Your task to perform on an android device: choose inbox layout in the gmail app Image 0: 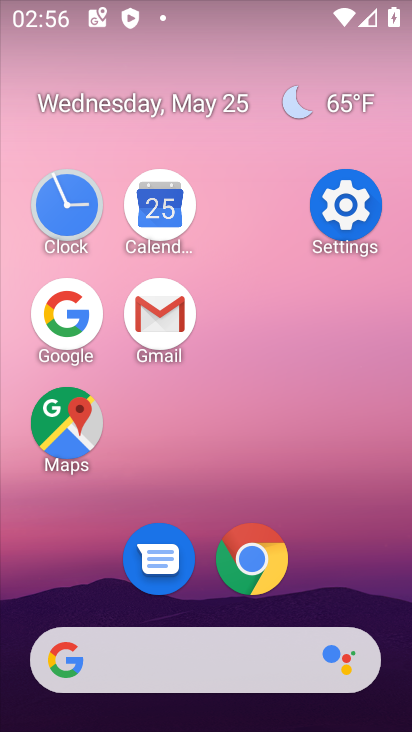
Step 0: click (183, 325)
Your task to perform on an android device: choose inbox layout in the gmail app Image 1: 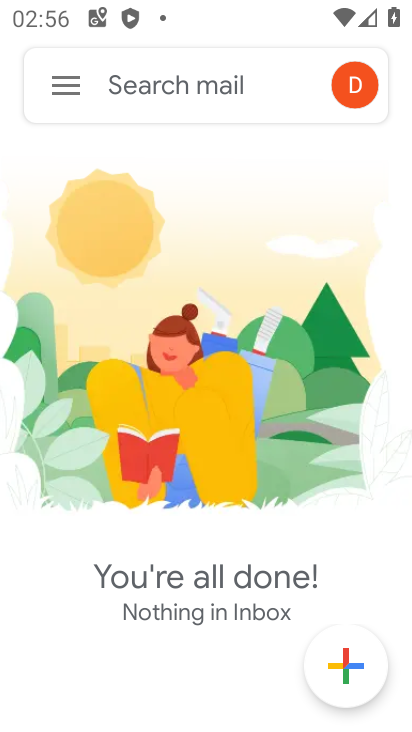
Step 1: click (83, 79)
Your task to perform on an android device: choose inbox layout in the gmail app Image 2: 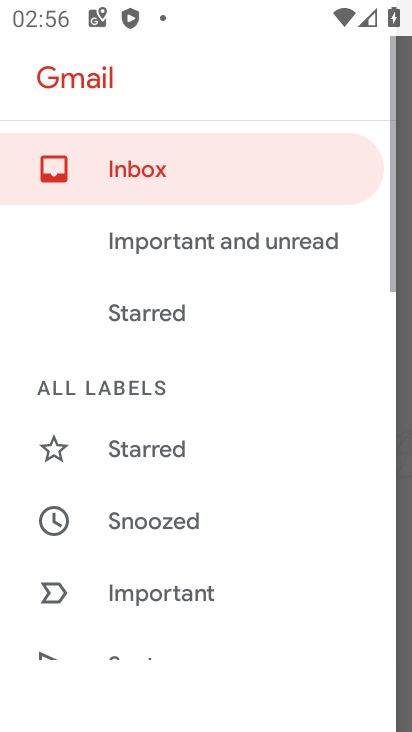
Step 2: drag from (234, 563) to (263, 163)
Your task to perform on an android device: choose inbox layout in the gmail app Image 3: 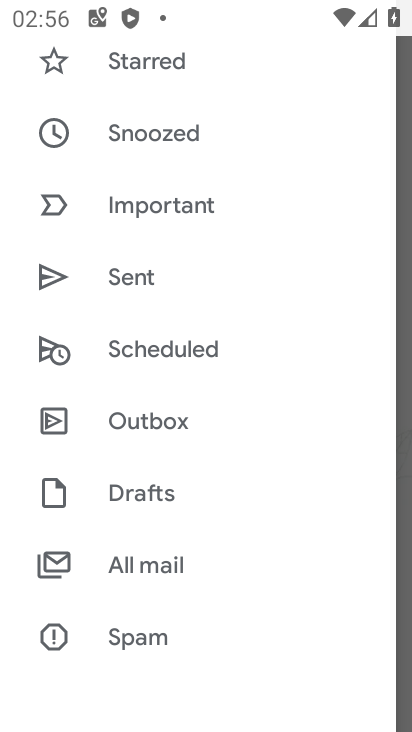
Step 3: drag from (154, 547) to (163, 117)
Your task to perform on an android device: choose inbox layout in the gmail app Image 4: 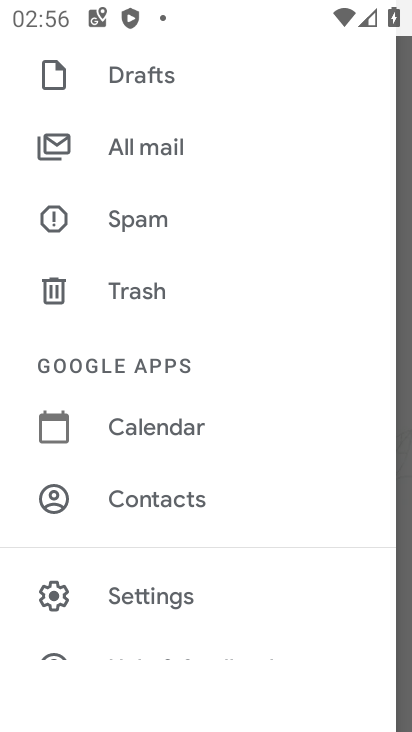
Step 4: click (191, 596)
Your task to perform on an android device: choose inbox layout in the gmail app Image 5: 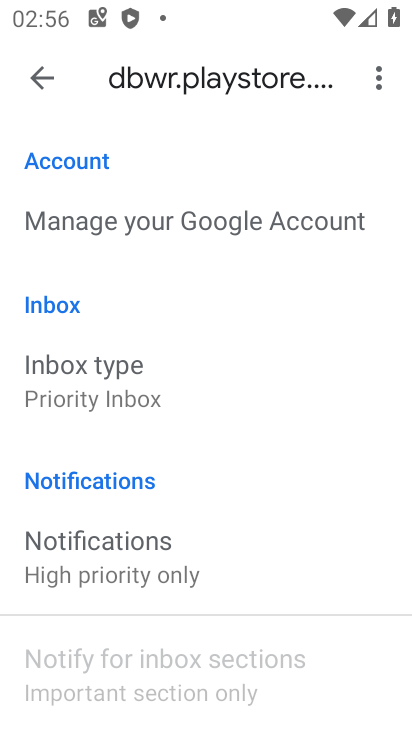
Step 5: click (194, 364)
Your task to perform on an android device: choose inbox layout in the gmail app Image 6: 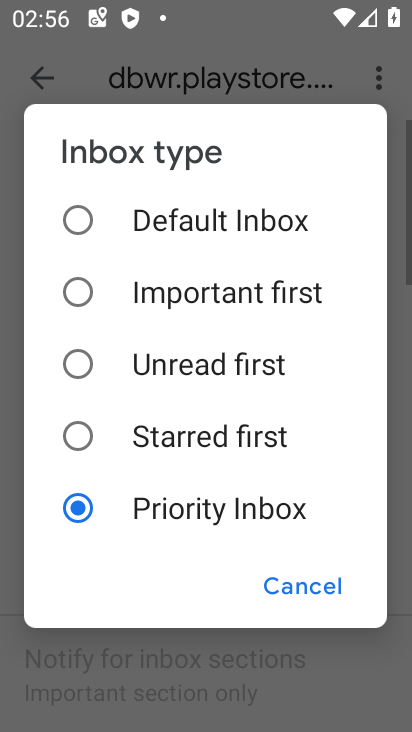
Step 6: task complete